Your task to perform on an android device: Show me popular games on the Play Store Image 0: 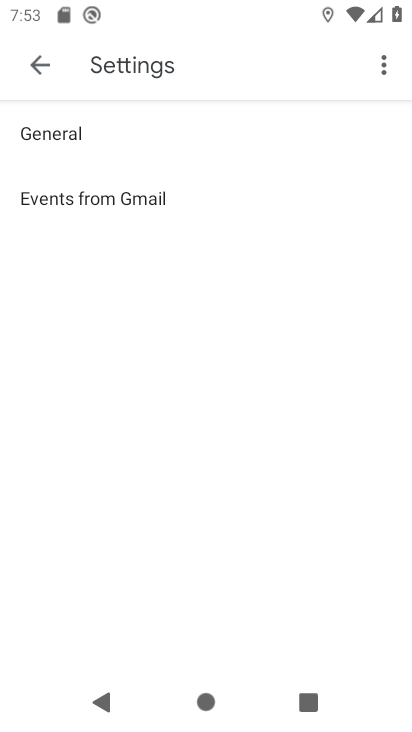
Step 0: press home button
Your task to perform on an android device: Show me popular games on the Play Store Image 1: 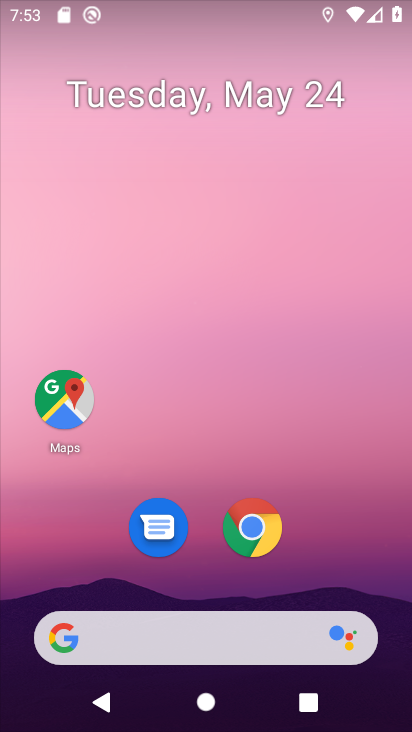
Step 1: drag from (348, 528) to (316, 182)
Your task to perform on an android device: Show me popular games on the Play Store Image 2: 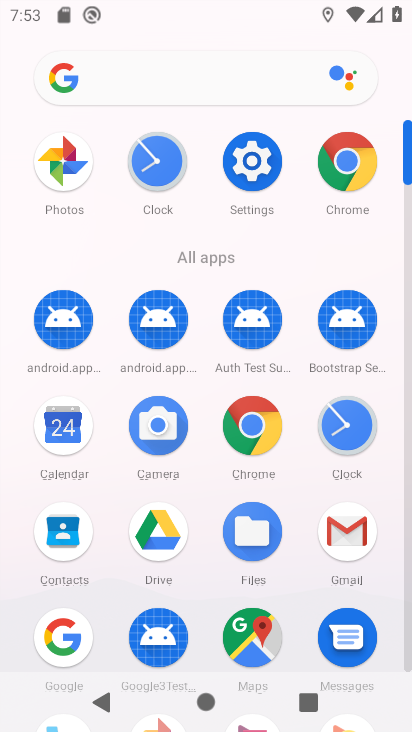
Step 2: drag from (299, 560) to (320, 230)
Your task to perform on an android device: Show me popular games on the Play Store Image 3: 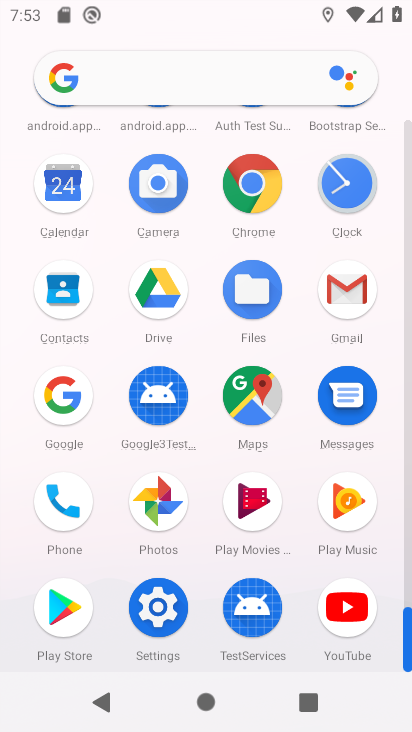
Step 3: drag from (295, 476) to (279, 441)
Your task to perform on an android device: Show me popular games on the Play Store Image 4: 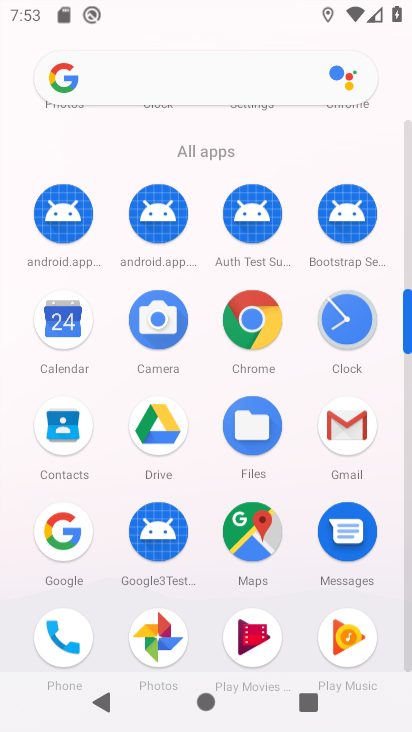
Step 4: drag from (281, 483) to (277, 523)
Your task to perform on an android device: Show me popular games on the Play Store Image 5: 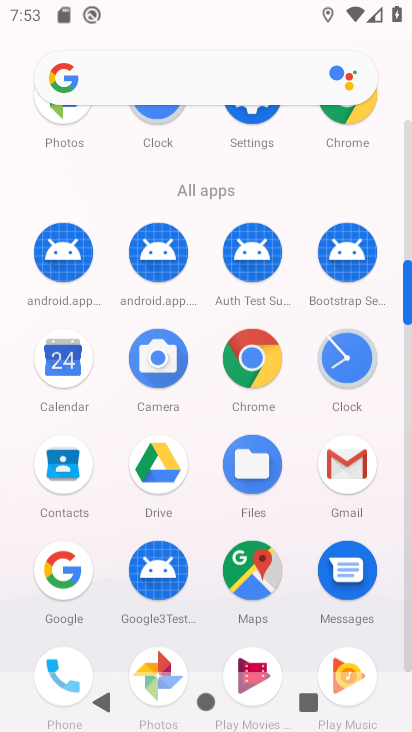
Step 5: click (278, 552)
Your task to perform on an android device: Show me popular games on the Play Store Image 6: 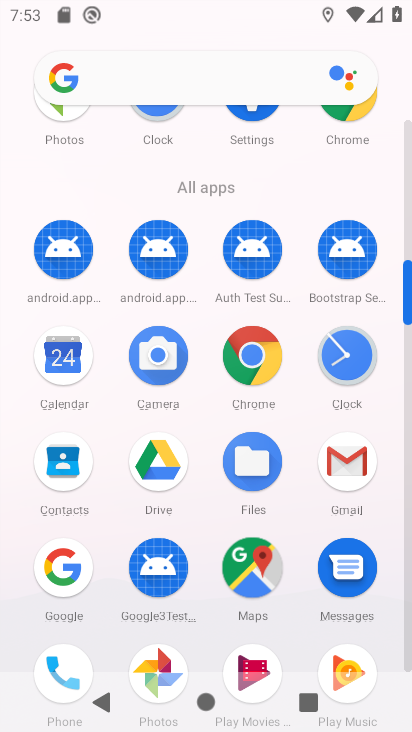
Step 6: click (278, 552)
Your task to perform on an android device: Show me popular games on the Play Store Image 7: 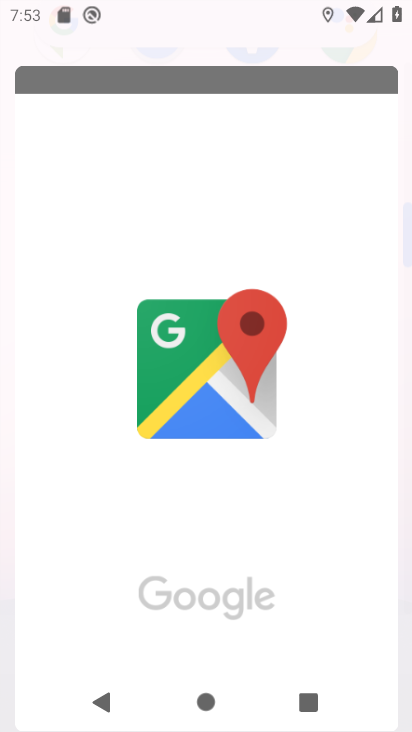
Step 7: click (278, 552)
Your task to perform on an android device: Show me popular games on the Play Store Image 8: 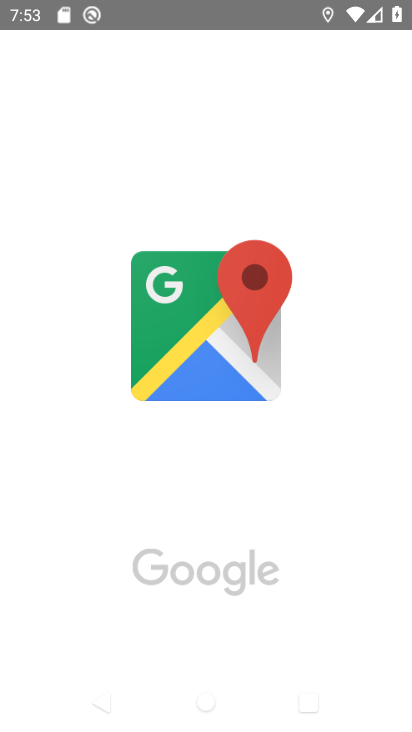
Step 8: press home button
Your task to perform on an android device: Show me popular games on the Play Store Image 9: 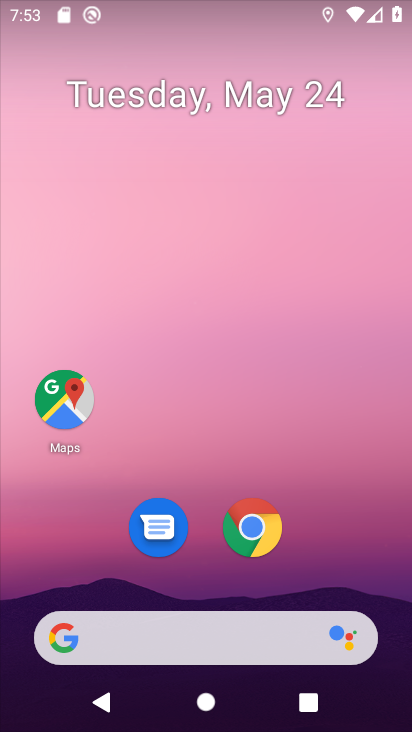
Step 9: drag from (377, 475) to (322, 288)
Your task to perform on an android device: Show me popular games on the Play Store Image 10: 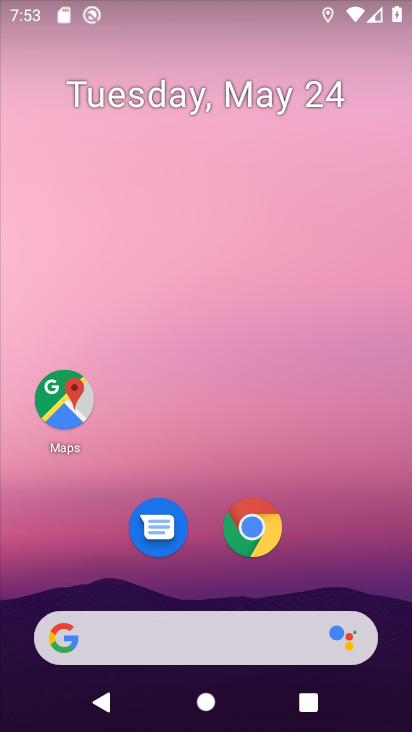
Step 10: drag from (331, 448) to (306, 159)
Your task to perform on an android device: Show me popular games on the Play Store Image 11: 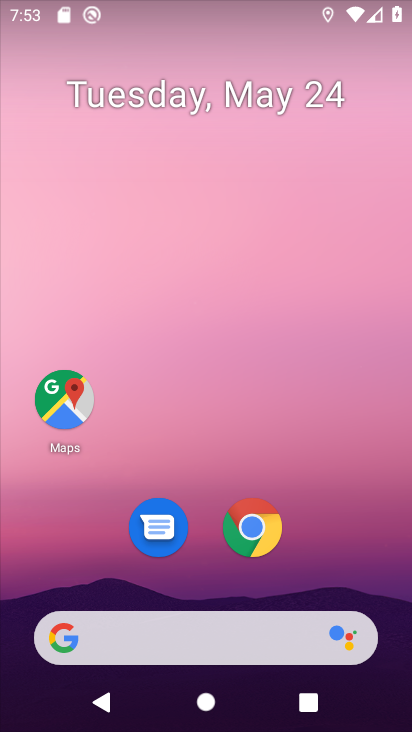
Step 11: drag from (337, 470) to (299, 138)
Your task to perform on an android device: Show me popular games on the Play Store Image 12: 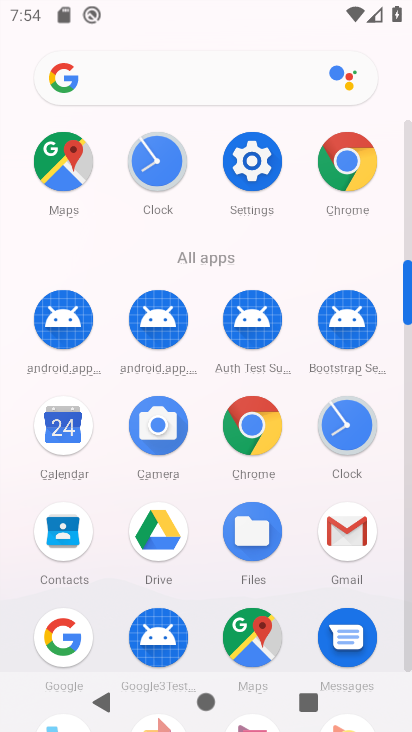
Step 12: drag from (293, 500) to (277, 231)
Your task to perform on an android device: Show me popular games on the Play Store Image 13: 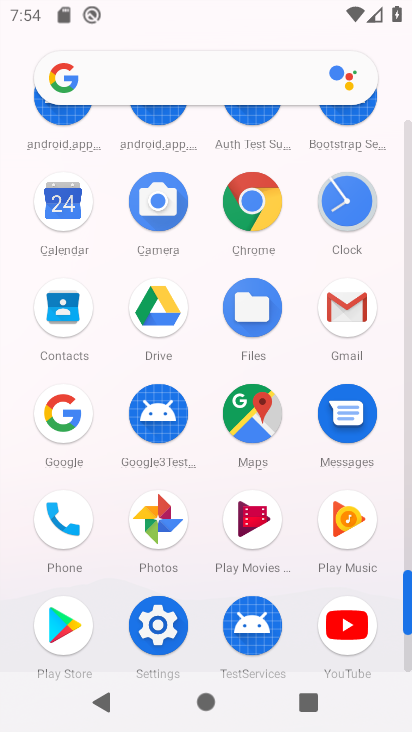
Step 13: drag from (284, 476) to (320, 197)
Your task to perform on an android device: Show me popular games on the Play Store Image 14: 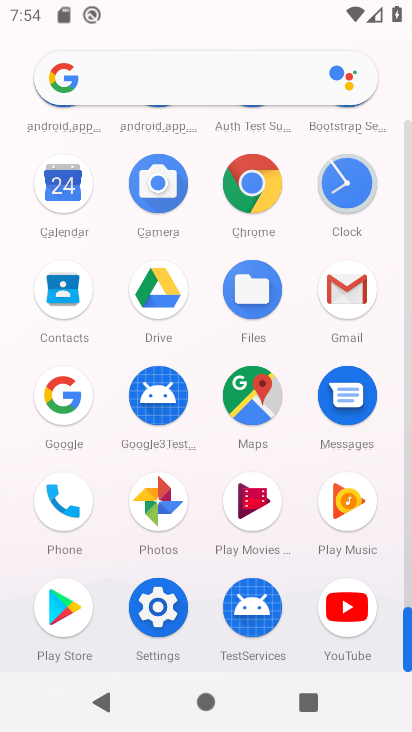
Step 14: click (52, 613)
Your task to perform on an android device: Show me popular games on the Play Store Image 15: 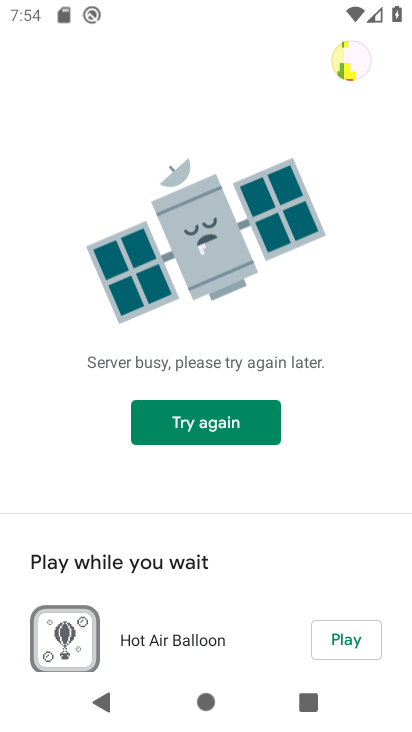
Step 15: click (194, 411)
Your task to perform on an android device: Show me popular games on the Play Store Image 16: 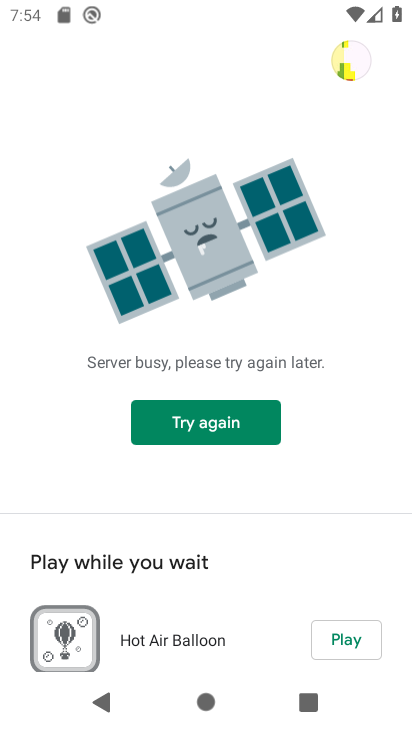
Step 16: task complete